Your task to perform on an android device: turn on javascript in the chrome app Image 0: 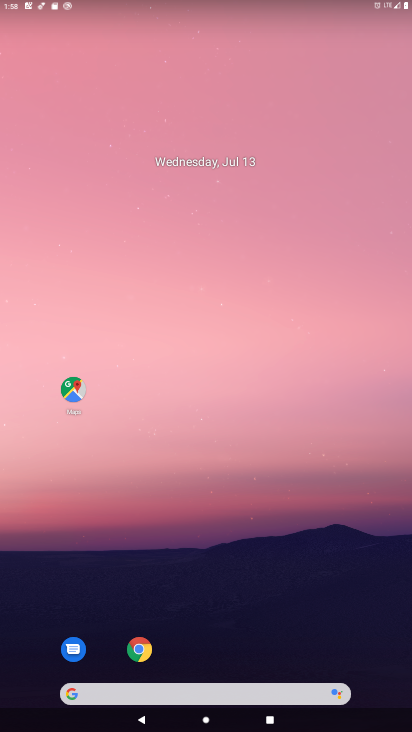
Step 0: press home button
Your task to perform on an android device: turn on javascript in the chrome app Image 1: 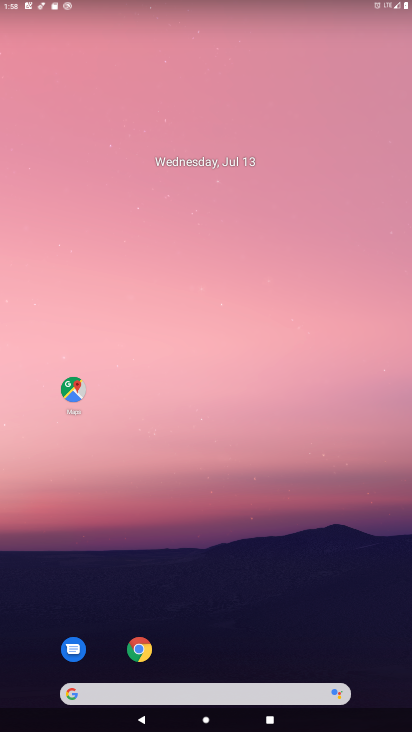
Step 1: drag from (254, 594) to (333, 132)
Your task to perform on an android device: turn on javascript in the chrome app Image 2: 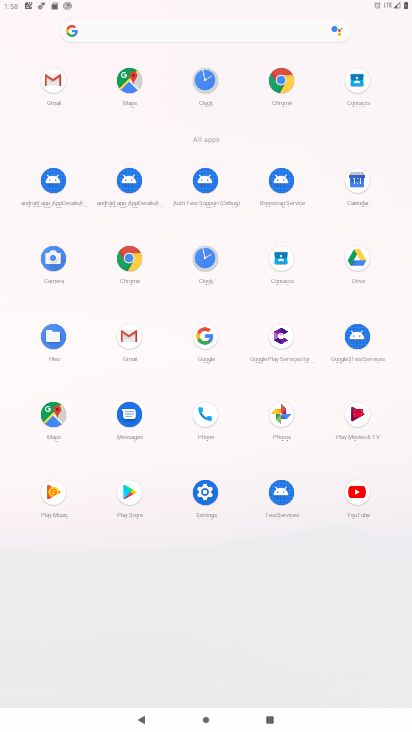
Step 2: click (289, 73)
Your task to perform on an android device: turn on javascript in the chrome app Image 3: 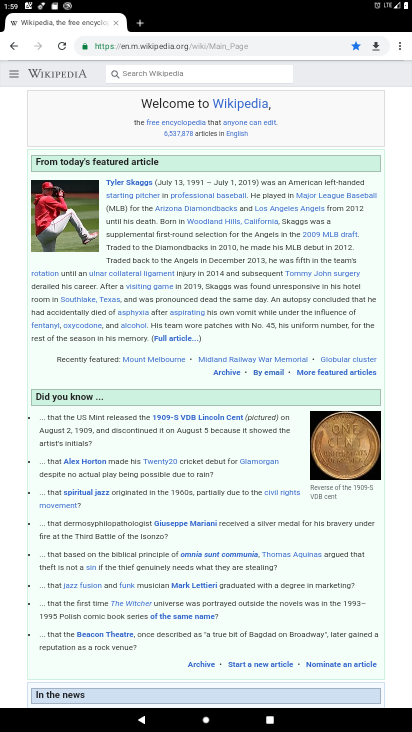
Step 3: drag from (397, 41) to (304, 296)
Your task to perform on an android device: turn on javascript in the chrome app Image 4: 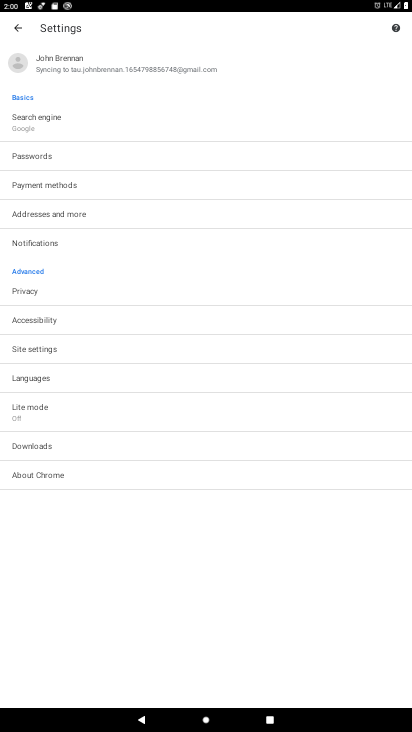
Step 4: click (41, 356)
Your task to perform on an android device: turn on javascript in the chrome app Image 5: 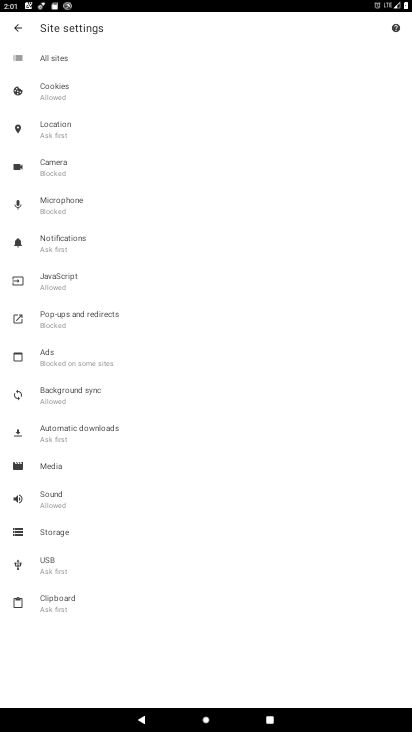
Step 5: click (57, 281)
Your task to perform on an android device: turn on javascript in the chrome app Image 6: 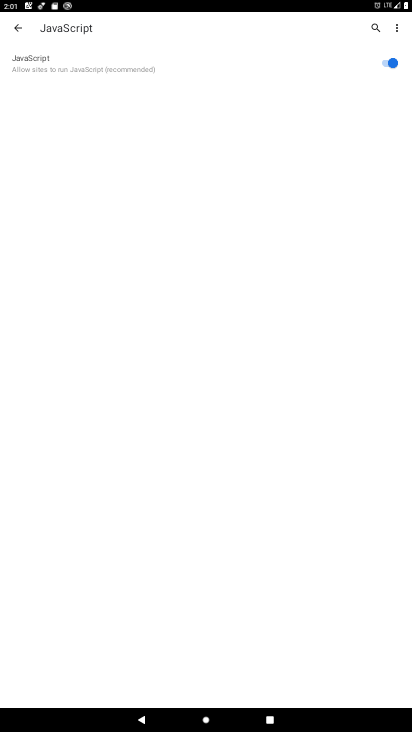
Step 6: task complete